Your task to perform on an android device: see sites visited before in the chrome app Image 0: 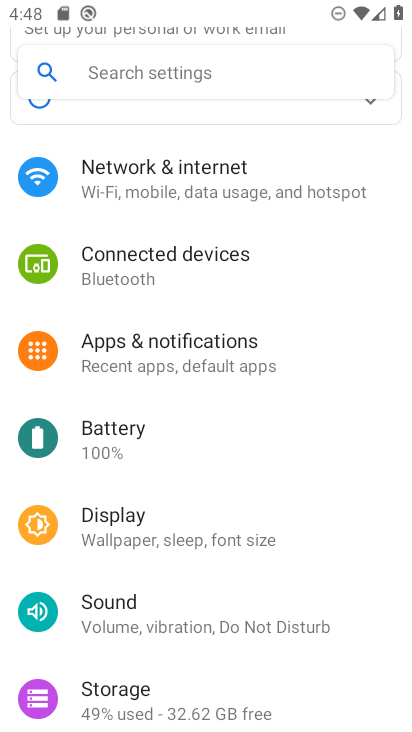
Step 0: press home button
Your task to perform on an android device: see sites visited before in the chrome app Image 1: 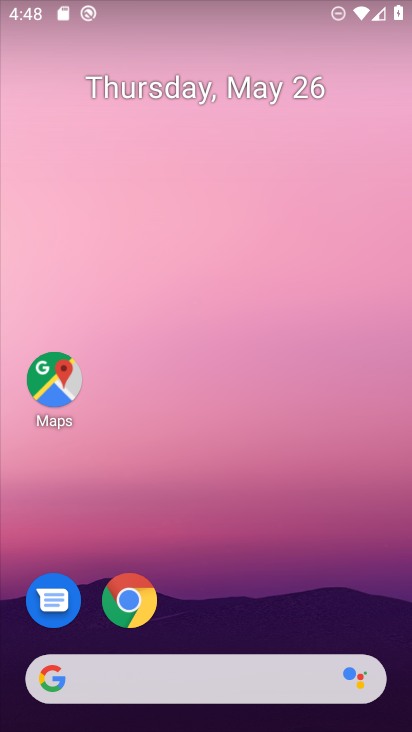
Step 1: click (130, 616)
Your task to perform on an android device: see sites visited before in the chrome app Image 2: 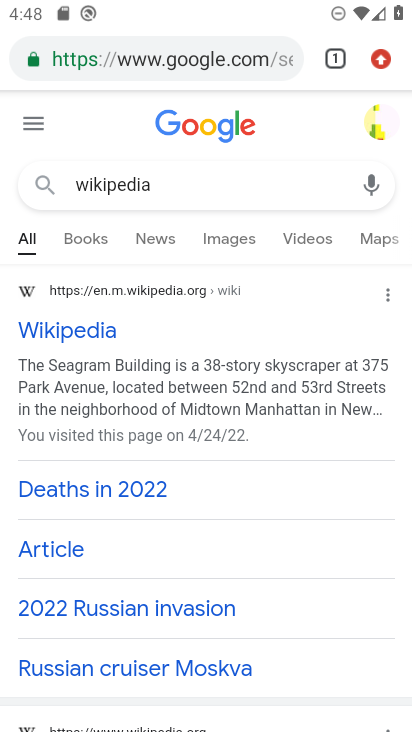
Step 2: click (375, 51)
Your task to perform on an android device: see sites visited before in the chrome app Image 3: 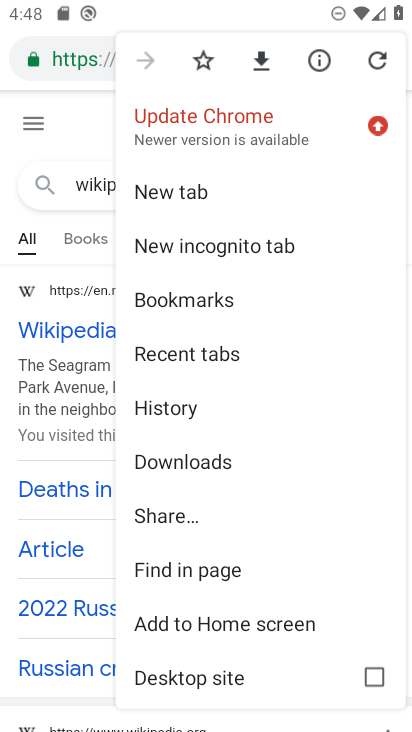
Step 3: click (193, 405)
Your task to perform on an android device: see sites visited before in the chrome app Image 4: 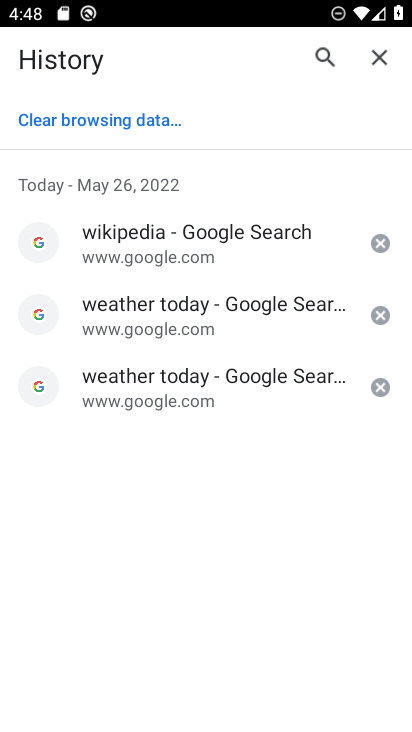
Step 4: task complete